Your task to perform on an android device: When is my next meeting? Image 0: 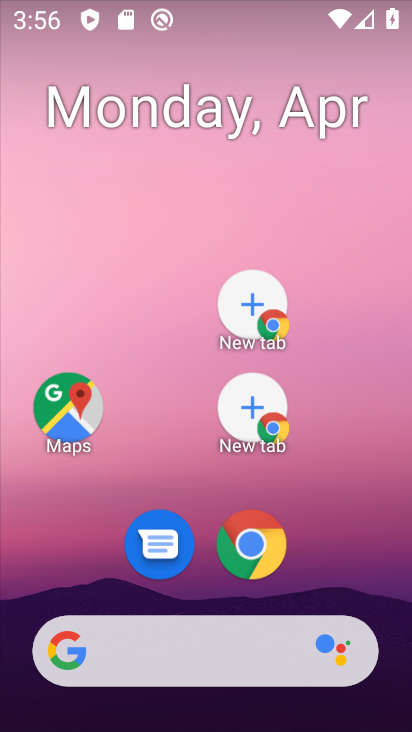
Step 0: drag from (185, 582) to (193, 225)
Your task to perform on an android device: When is my next meeting? Image 1: 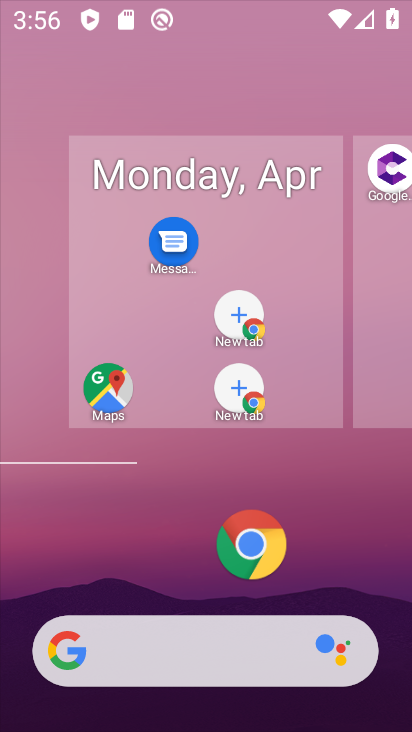
Step 1: click (199, 543)
Your task to perform on an android device: When is my next meeting? Image 2: 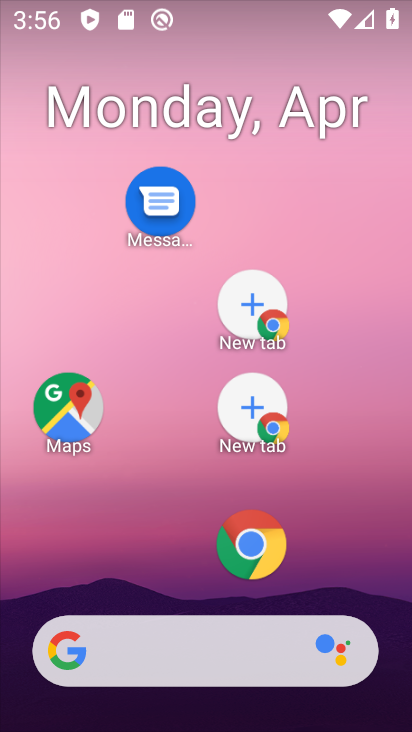
Step 2: drag from (289, 537) to (387, 22)
Your task to perform on an android device: When is my next meeting? Image 3: 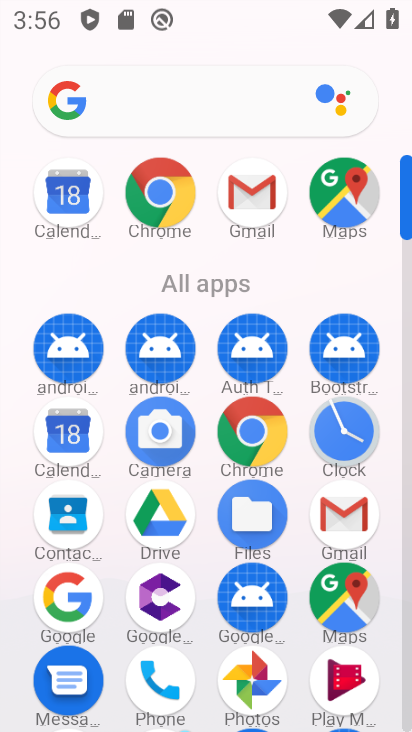
Step 3: click (69, 422)
Your task to perform on an android device: When is my next meeting? Image 4: 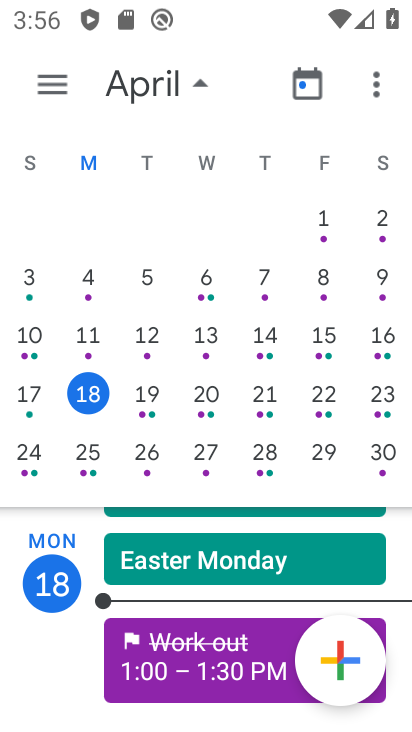
Step 4: click (148, 395)
Your task to perform on an android device: When is my next meeting? Image 5: 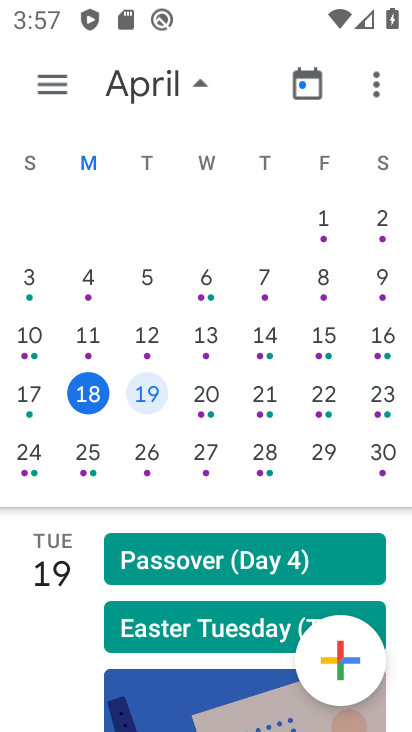
Step 5: task complete